Your task to perform on an android device: turn off priority inbox in the gmail app Image 0: 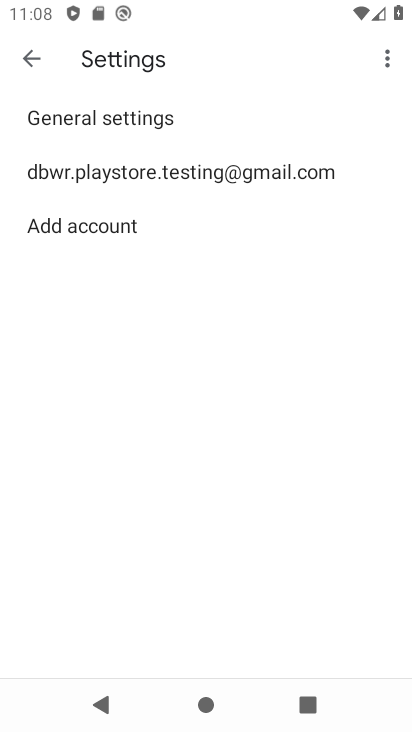
Step 0: press home button
Your task to perform on an android device: turn off priority inbox in the gmail app Image 1: 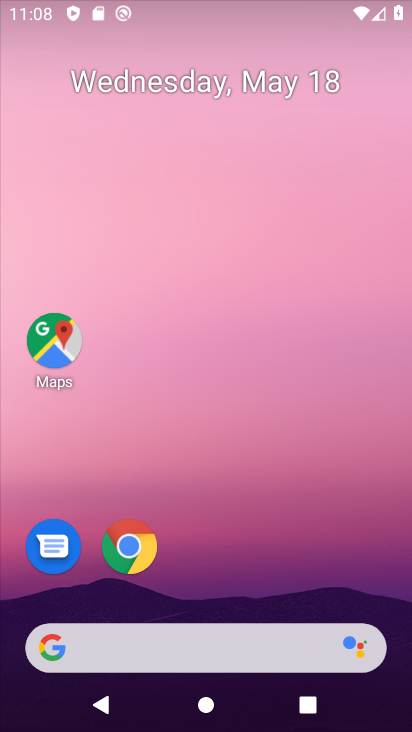
Step 1: drag from (233, 601) to (315, 101)
Your task to perform on an android device: turn off priority inbox in the gmail app Image 2: 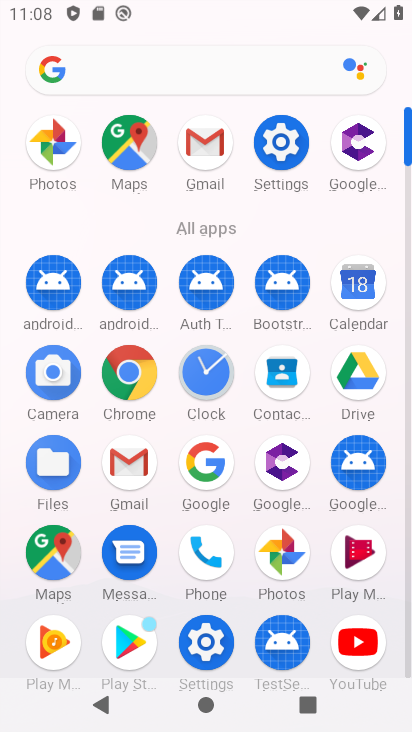
Step 2: click (213, 133)
Your task to perform on an android device: turn off priority inbox in the gmail app Image 3: 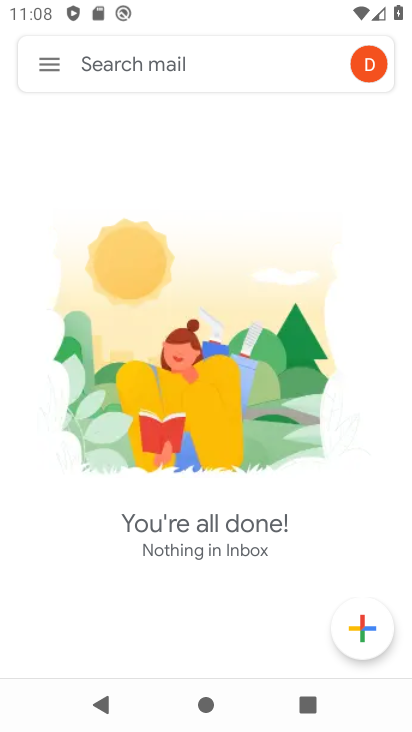
Step 3: click (47, 62)
Your task to perform on an android device: turn off priority inbox in the gmail app Image 4: 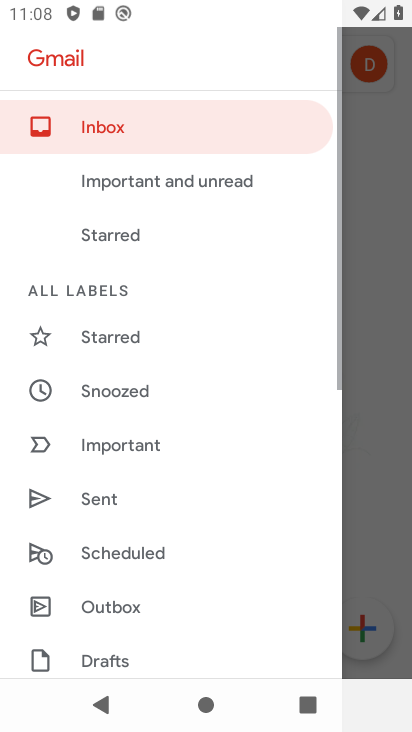
Step 4: drag from (184, 590) to (280, 143)
Your task to perform on an android device: turn off priority inbox in the gmail app Image 5: 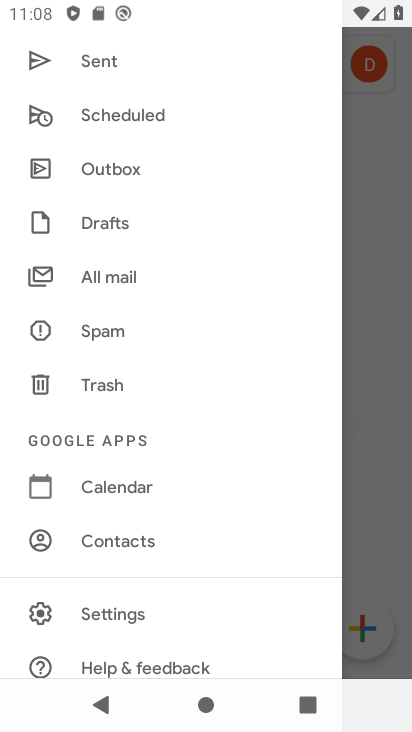
Step 5: click (104, 610)
Your task to perform on an android device: turn off priority inbox in the gmail app Image 6: 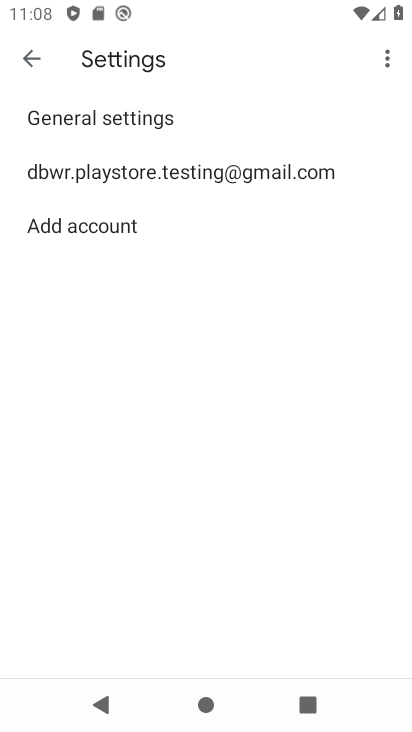
Step 6: click (145, 174)
Your task to perform on an android device: turn off priority inbox in the gmail app Image 7: 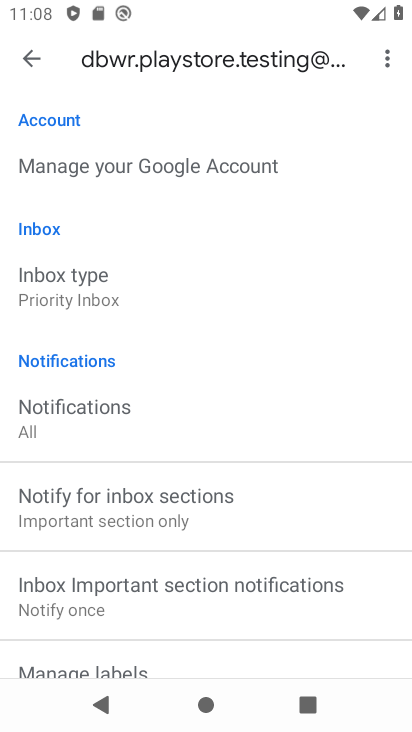
Step 7: click (78, 299)
Your task to perform on an android device: turn off priority inbox in the gmail app Image 8: 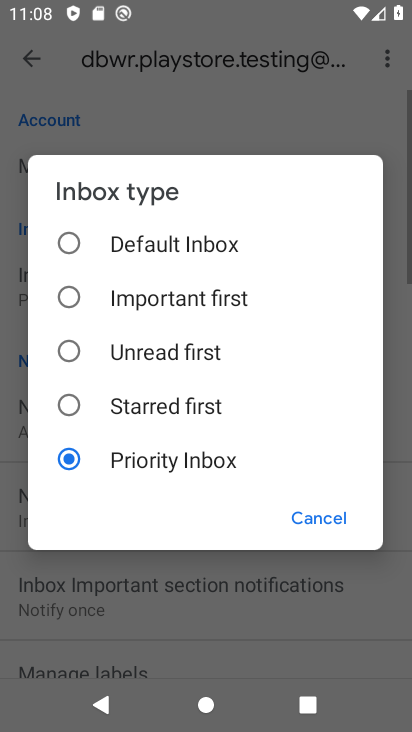
Step 8: click (70, 250)
Your task to perform on an android device: turn off priority inbox in the gmail app Image 9: 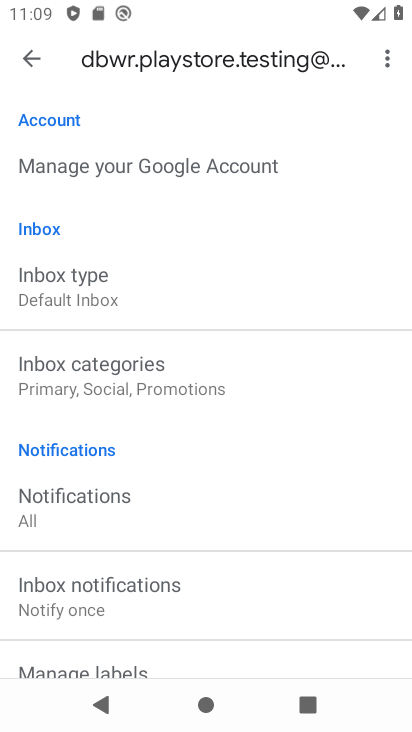
Step 9: task complete